Your task to perform on an android device: add a contact Image 0: 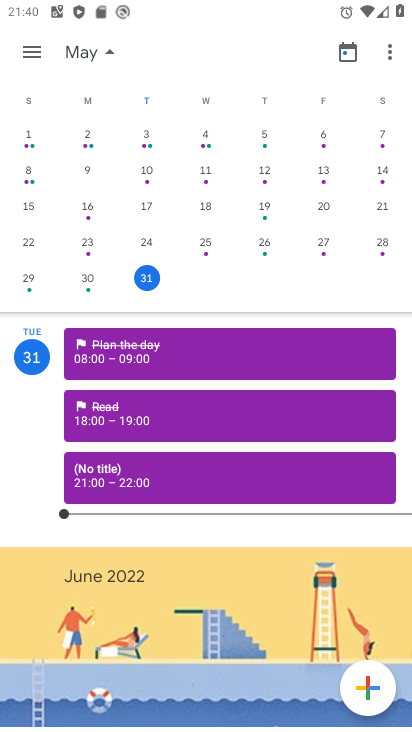
Step 0: press home button
Your task to perform on an android device: add a contact Image 1: 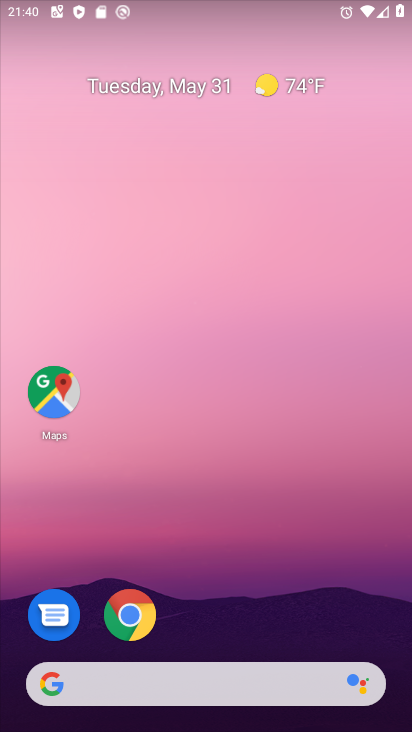
Step 1: drag from (185, 599) to (224, 144)
Your task to perform on an android device: add a contact Image 2: 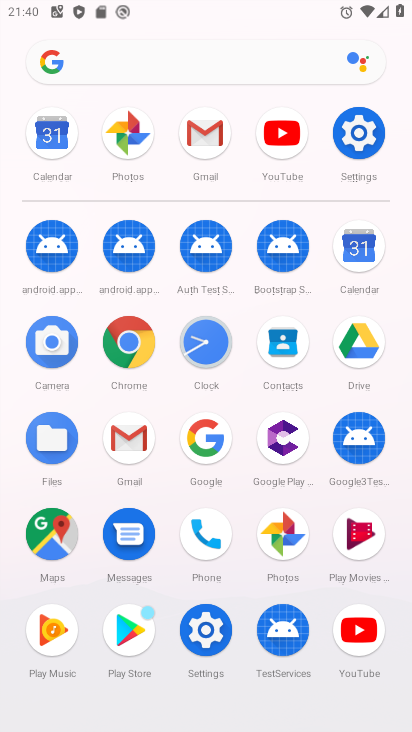
Step 2: click (262, 363)
Your task to perform on an android device: add a contact Image 3: 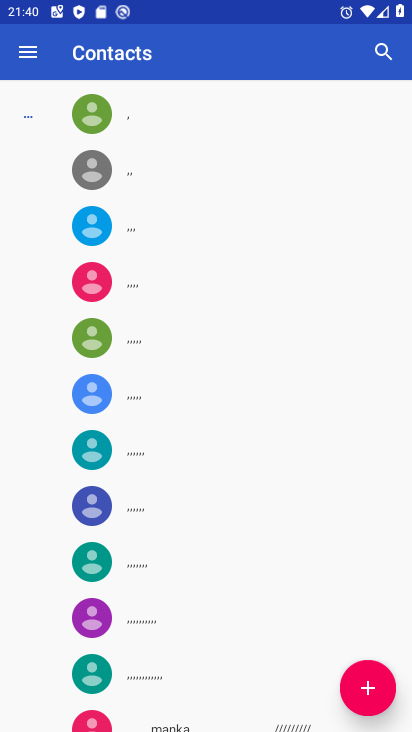
Step 3: click (364, 682)
Your task to perform on an android device: add a contact Image 4: 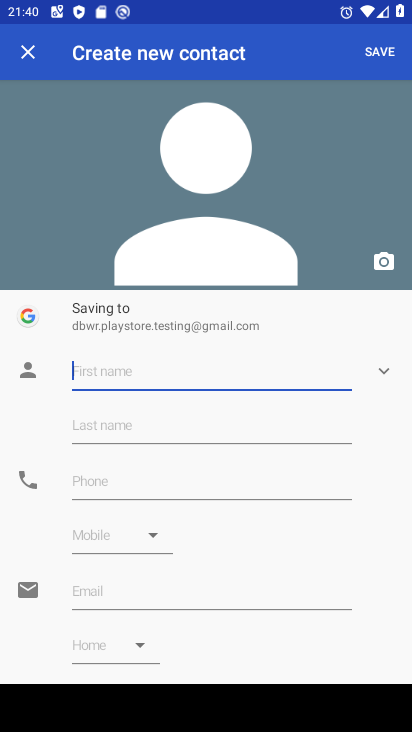
Step 4: type "fhfth"
Your task to perform on an android device: add a contact Image 5: 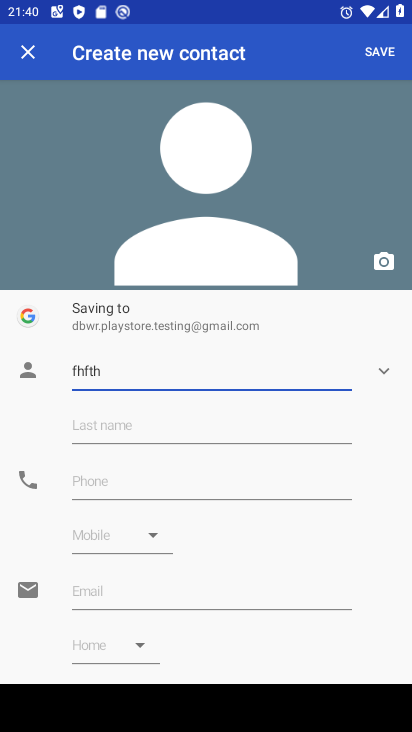
Step 5: click (82, 471)
Your task to perform on an android device: add a contact Image 6: 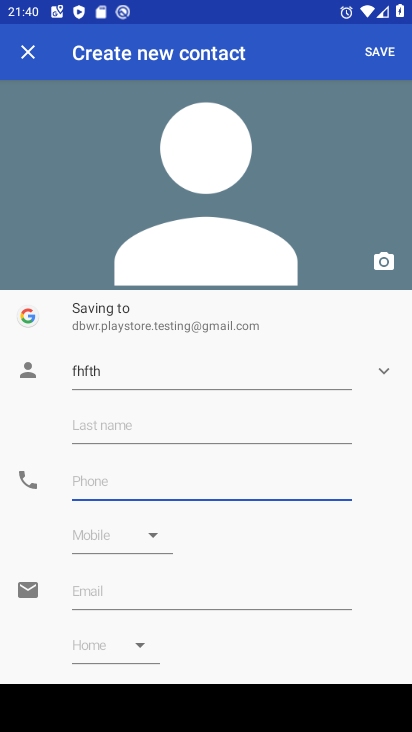
Step 6: type "967968657"
Your task to perform on an android device: add a contact Image 7: 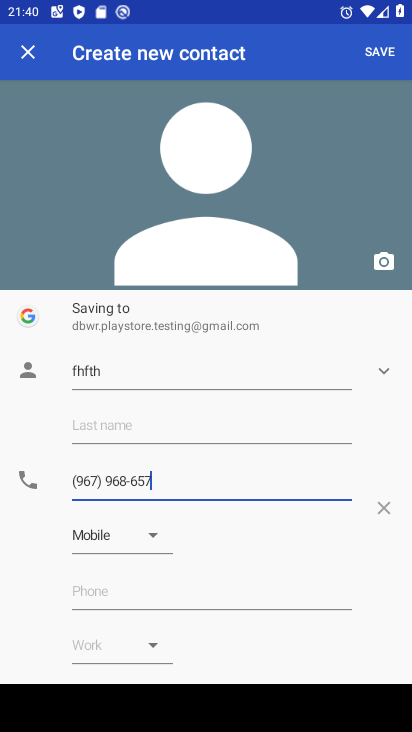
Step 7: click (377, 44)
Your task to perform on an android device: add a contact Image 8: 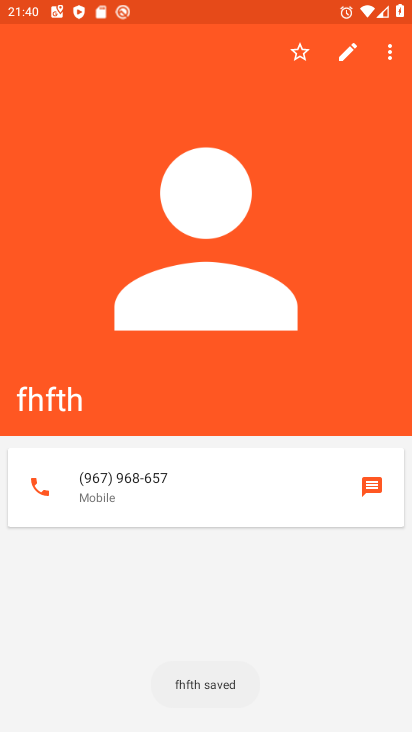
Step 8: task complete